Your task to perform on an android device: Open Chrome and go to the settings page Image 0: 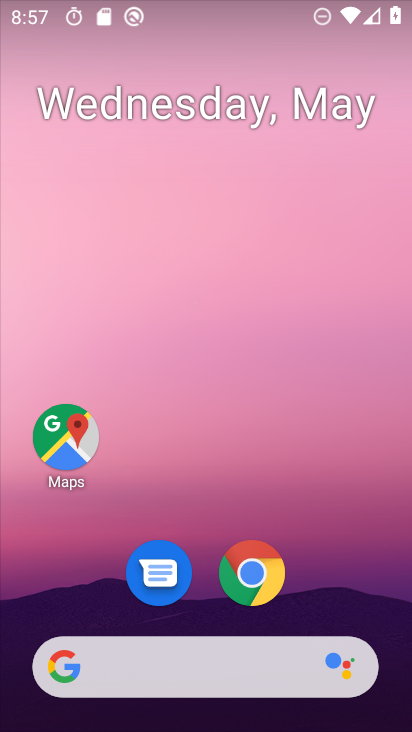
Step 0: click (254, 571)
Your task to perform on an android device: Open Chrome and go to the settings page Image 1: 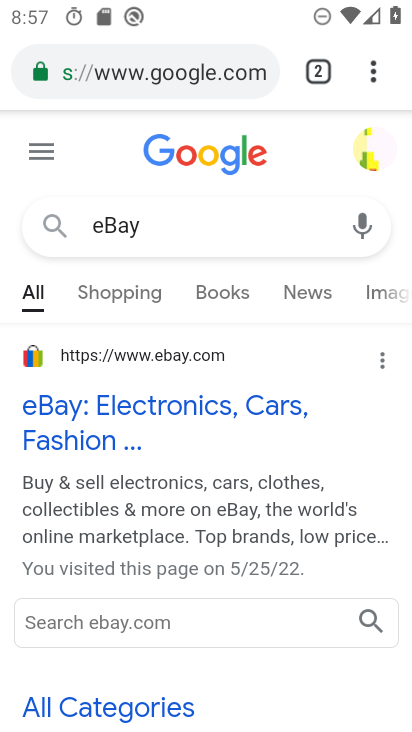
Step 1: click (373, 93)
Your task to perform on an android device: Open Chrome and go to the settings page Image 2: 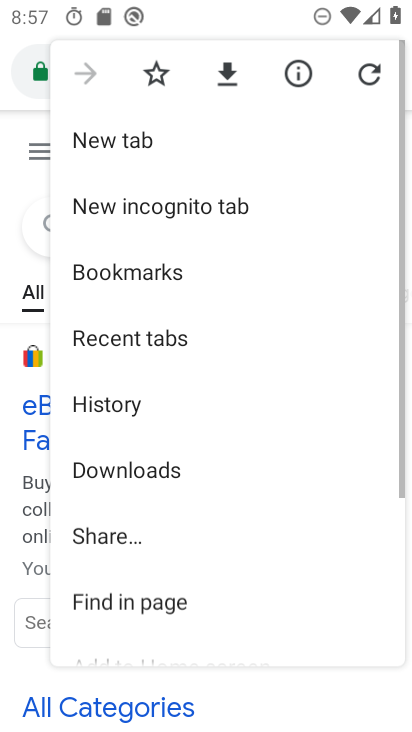
Step 2: click (371, 69)
Your task to perform on an android device: Open Chrome and go to the settings page Image 3: 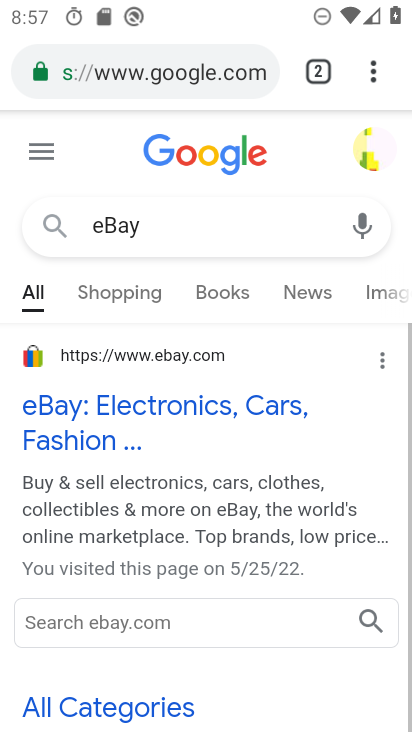
Step 3: click (377, 68)
Your task to perform on an android device: Open Chrome and go to the settings page Image 4: 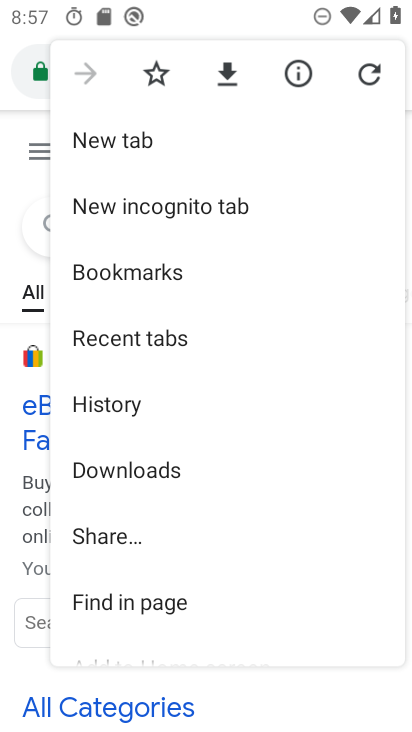
Step 4: drag from (234, 613) to (278, 259)
Your task to perform on an android device: Open Chrome and go to the settings page Image 5: 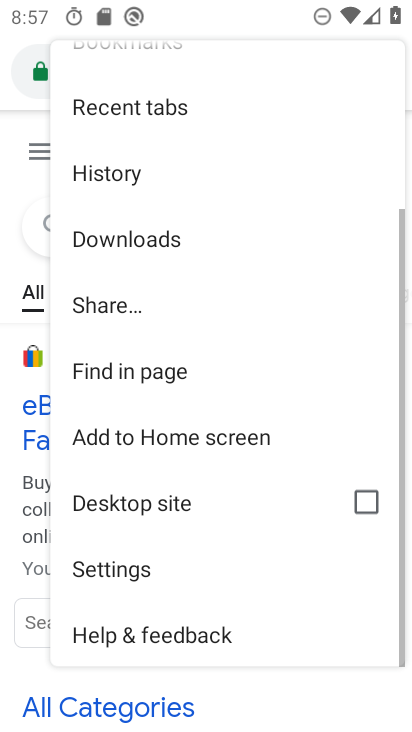
Step 5: click (120, 557)
Your task to perform on an android device: Open Chrome and go to the settings page Image 6: 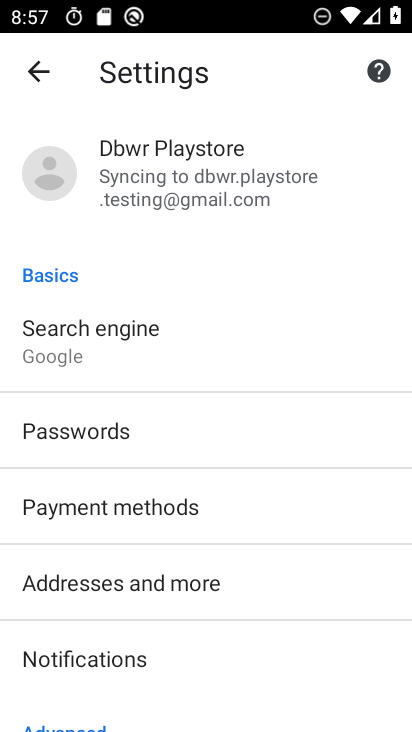
Step 6: task complete